Your task to perform on an android device: turn on airplane mode Image 0: 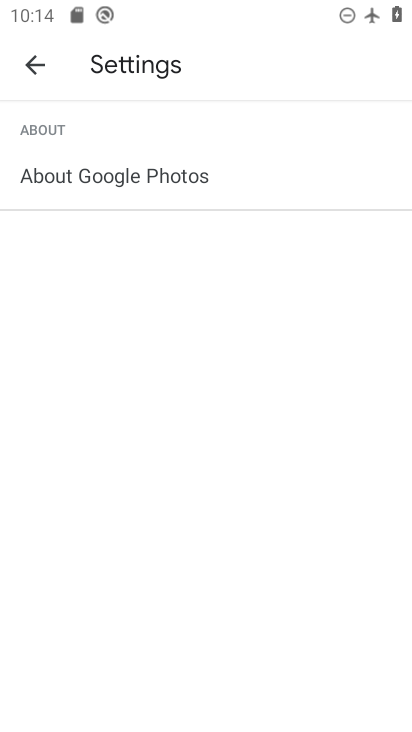
Step 0: press home button
Your task to perform on an android device: turn on airplane mode Image 1: 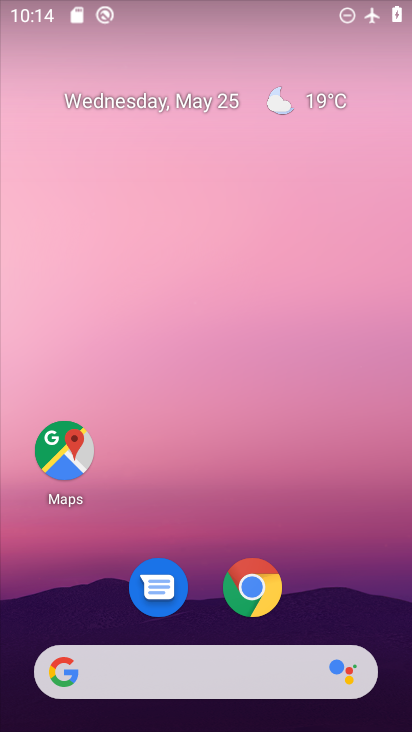
Step 1: drag from (363, 600) to (313, 89)
Your task to perform on an android device: turn on airplane mode Image 2: 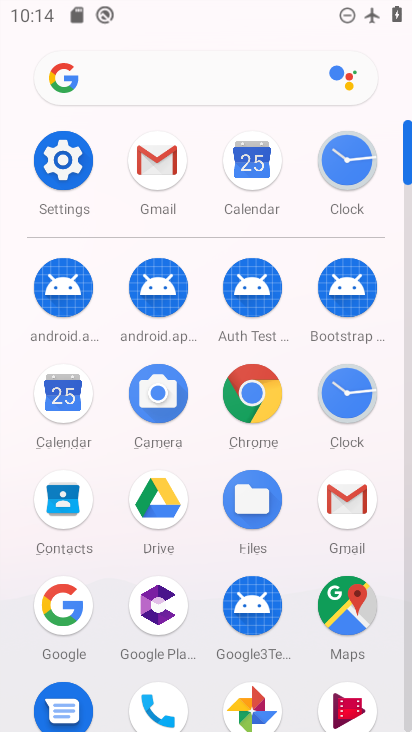
Step 2: click (410, 713)
Your task to perform on an android device: turn on airplane mode Image 3: 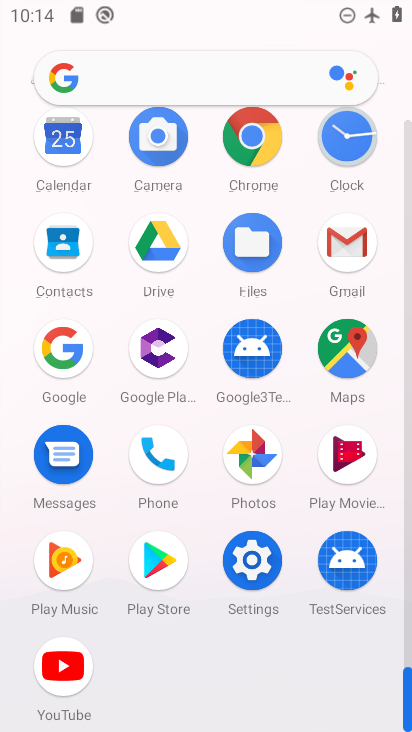
Step 3: click (252, 559)
Your task to perform on an android device: turn on airplane mode Image 4: 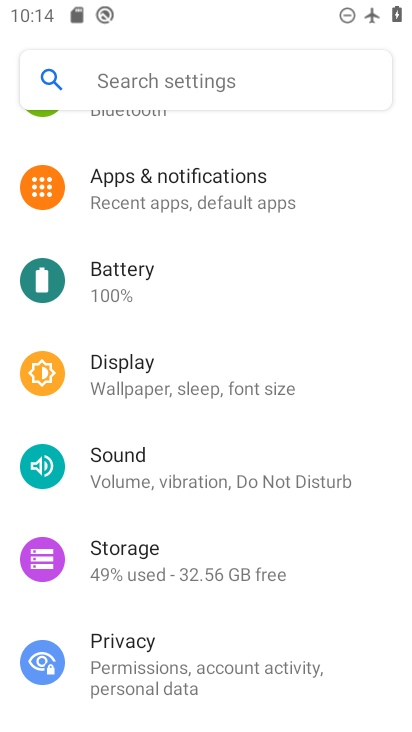
Step 4: drag from (279, 204) to (288, 636)
Your task to perform on an android device: turn on airplane mode Image 5: 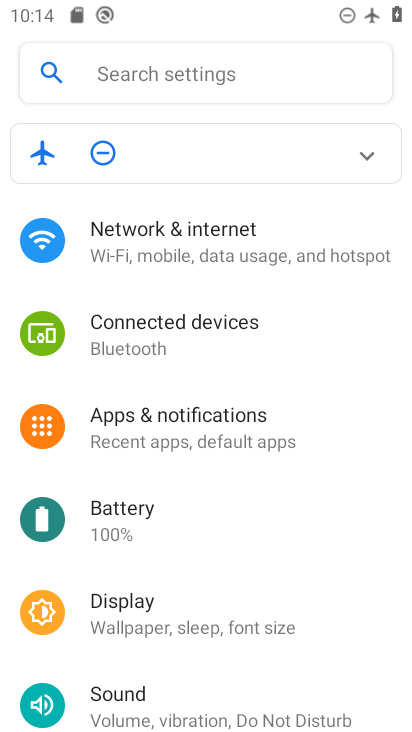
Step 5: click (163, 220)
Your task to perform on an android device: turn on airplane mode Image 6: 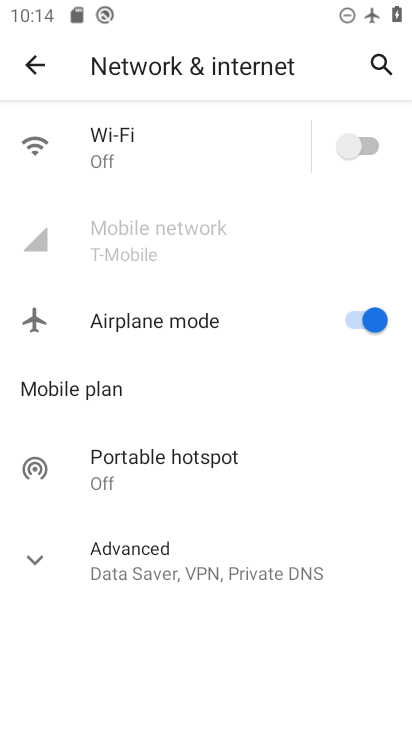
Step 6: task complete